Your task to perform on an android device: Search for seafood restaurants on Google Maps Image 0: 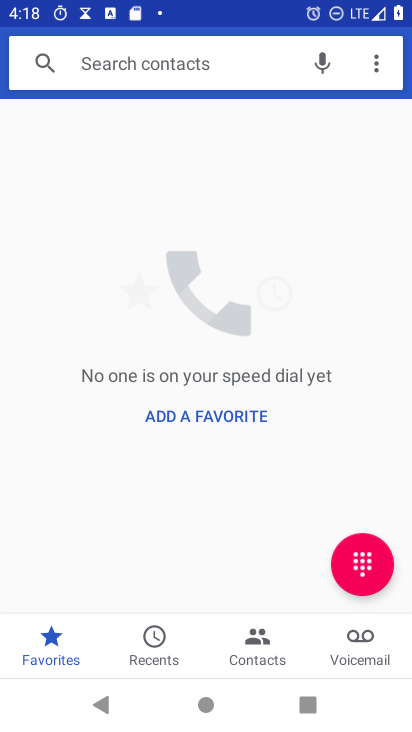
Step 0: press home button
Your task to perform on an android device: Search for seafood restaurants on Google Maps Image 1: 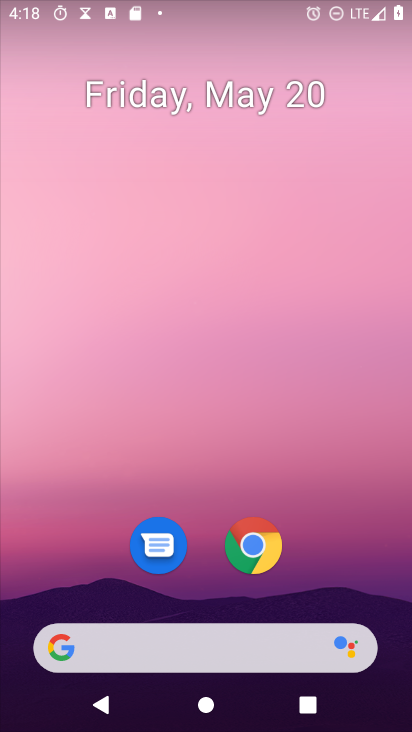
Step 1: drag from (202, 626) to (203, 90)
Your task to perform on an android device: Search for seafood restaurants on Google Maps Image 2: 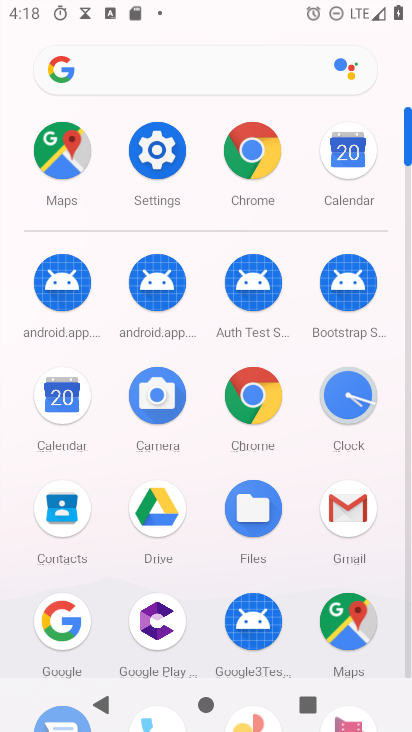
Step 2: click (354, 640)
Your task to perform on an android device: Search for seafood restaurants on Google Maps Image 3: 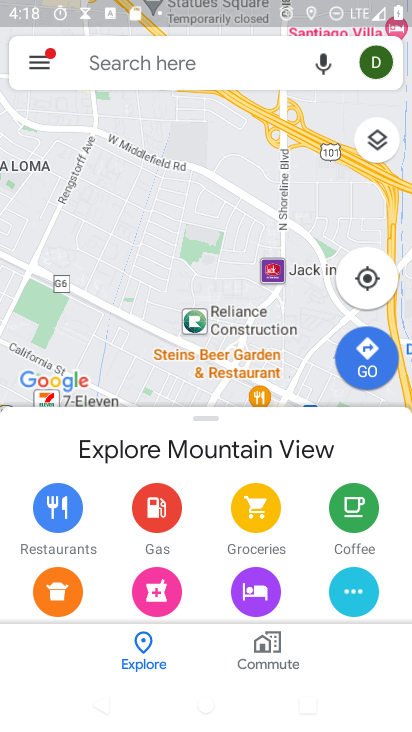
Step 3: click (97, 65)
Your task to perform on an android device: Search for seafood restaurants on Google Maps Image 4: 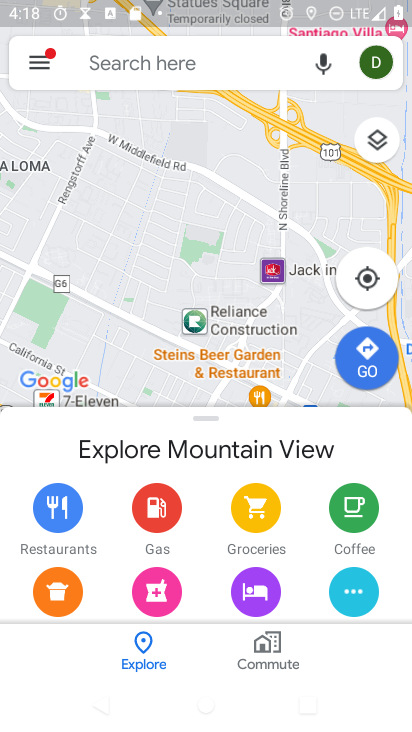
Step 4: click (97, 65)
Your task to perform on an android device: Search for seafood restaurants on Google Maps Image 5: 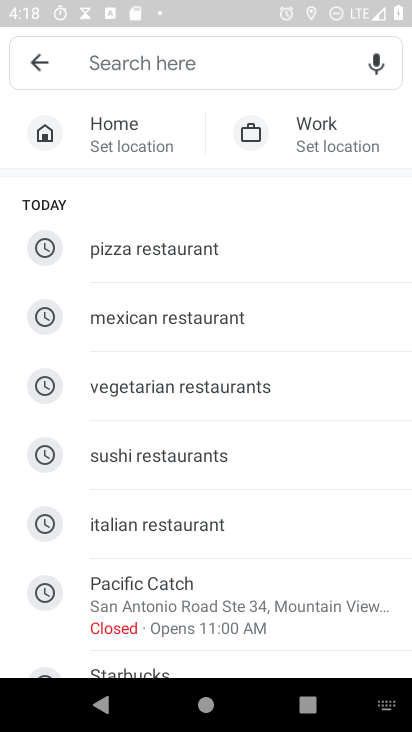
Step 5: drag from (256, 629) to (325, 165)
Your task to perform on an android device: Search for seafood restaurants on Google Maps Image 6: 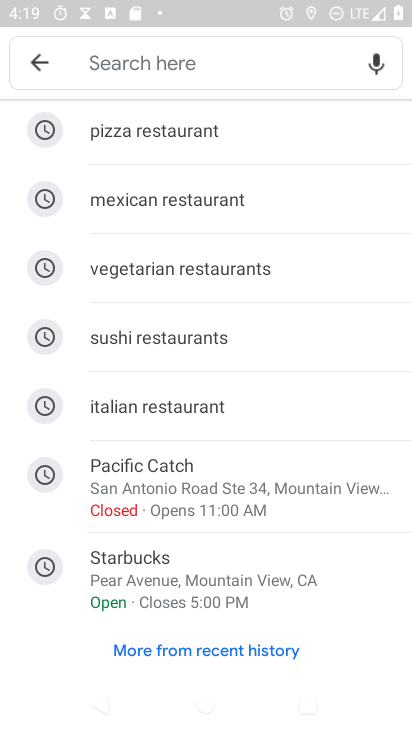
Step 6: click (176, 56)
Your task to perform on an android device: Search for seafood restaurants on Google Maps Image 7: 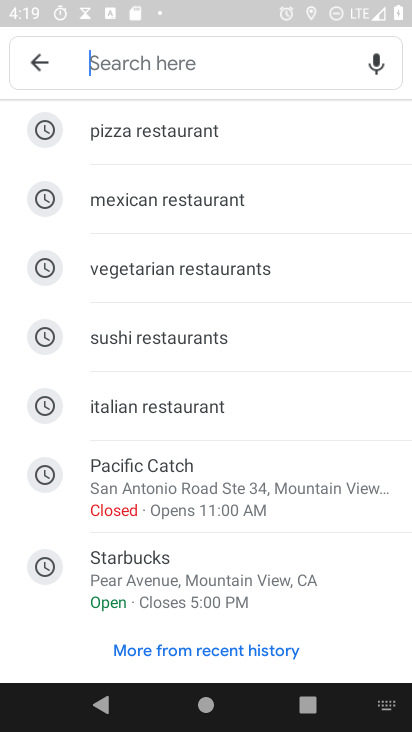
Step 7: click (176, 55)
Your task to perform on an android device: Search for seafood restaurants on Google Maps Image 8: 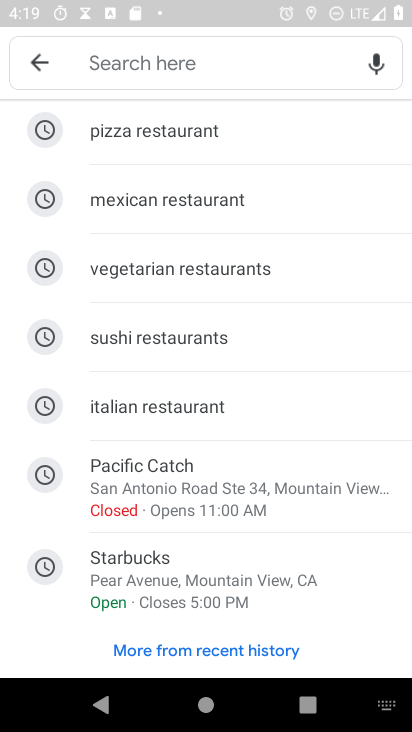
Step 8: type "seafood restaurant"
Your task to perform on an android device: Search for seafood restaurants on Google Maps Image 9: 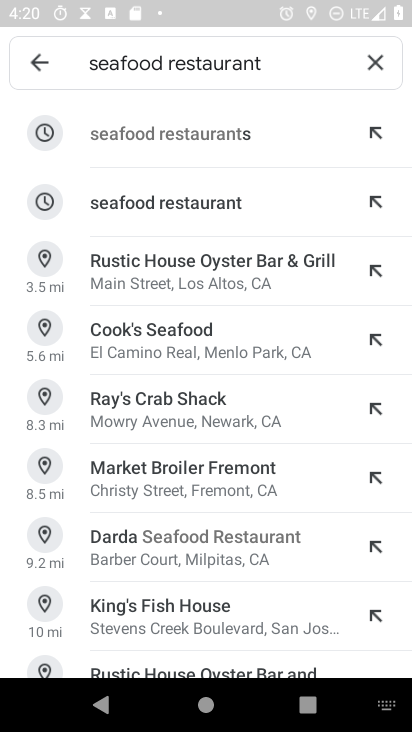
Step 9: click (181, 213)
Your task to perform on an android device: Search for seafood restaurants on Google Maps Image 10: 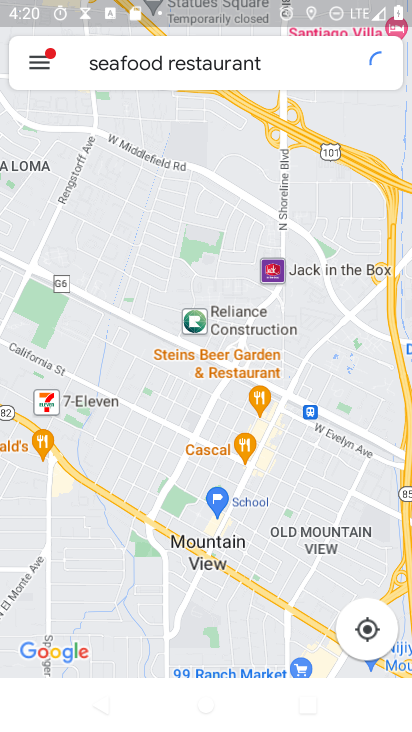
Step 10: click (181, 213)
Your task to perform on an android device: Search for seafood restaurants on Google Maps Image 11: 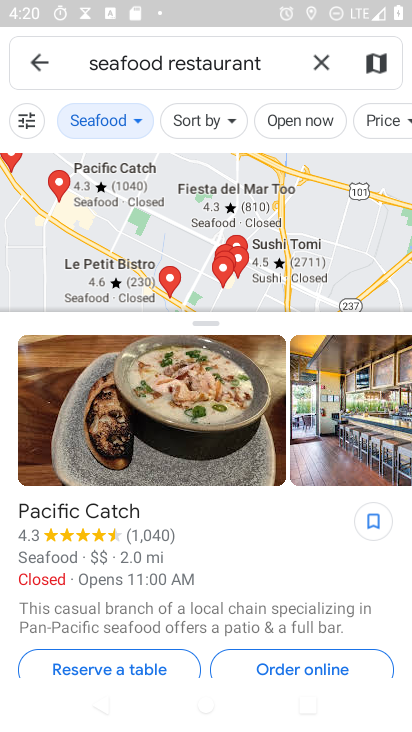
Step 11: task complete